Your task to perform on an android device: Go to eBay Image 0: 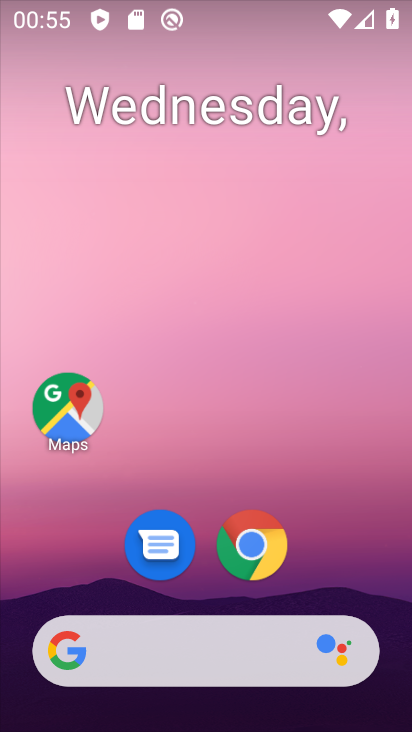
Step 0: drag from (309, 534) to (300, 6)
Your task to perform on an android device: Go to eBay Image 1: 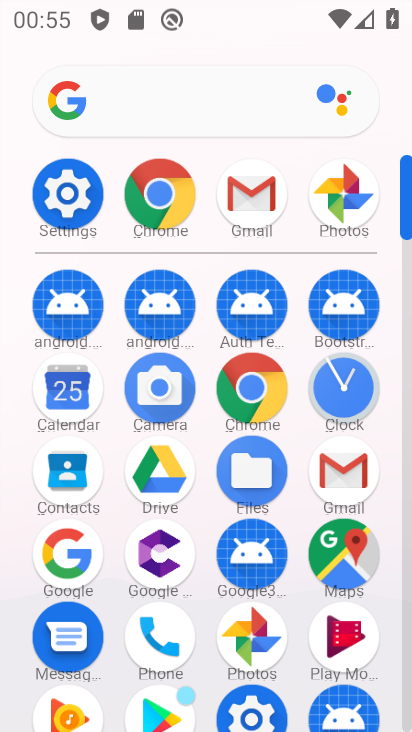
Step 1: click (166, 189)
Your task to perform on an android device: Go to eBay Image 2: 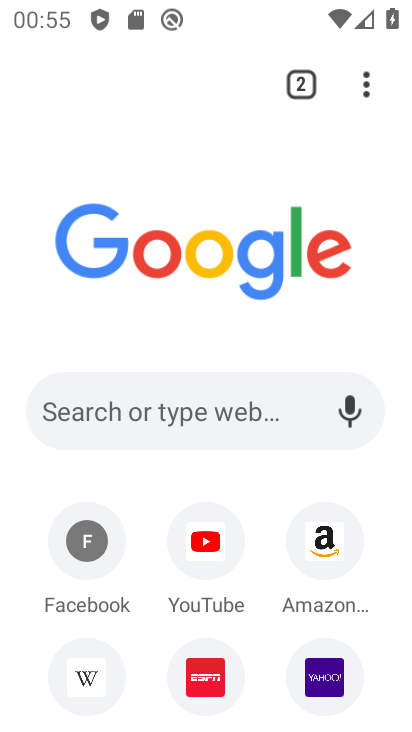
Step 2: click (218, 399)
Your task to perform on an android device: Go to eBay Image 3: 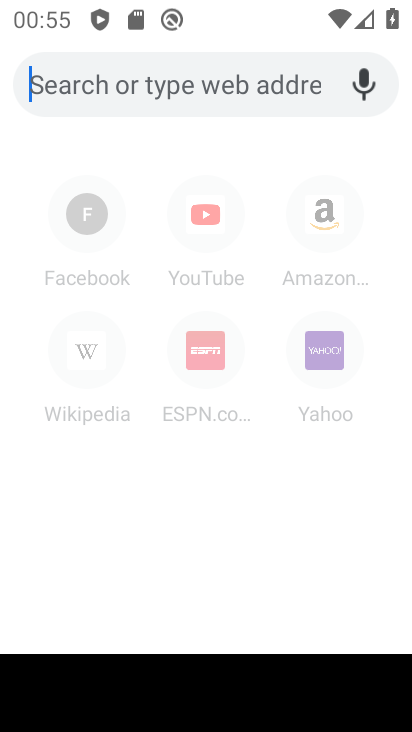
Step 3: type "ebay"
Your task to perform on an android device: Go to eBay Image 4: 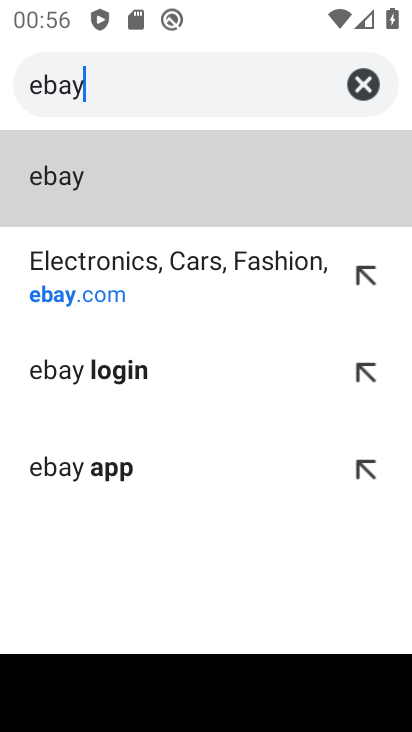
Step 4: click (55, 301)
Your task to perform on an android device: Go to eBay Image 5: 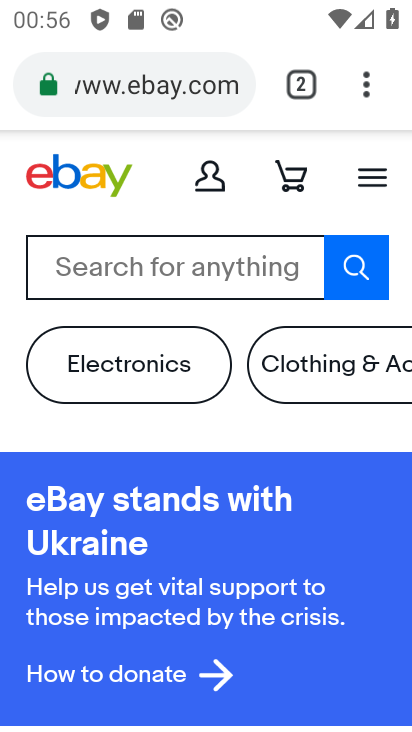
Step 5: task complete